Your task to perform on an android device: move an email to a new category in the gmail app Image 0: 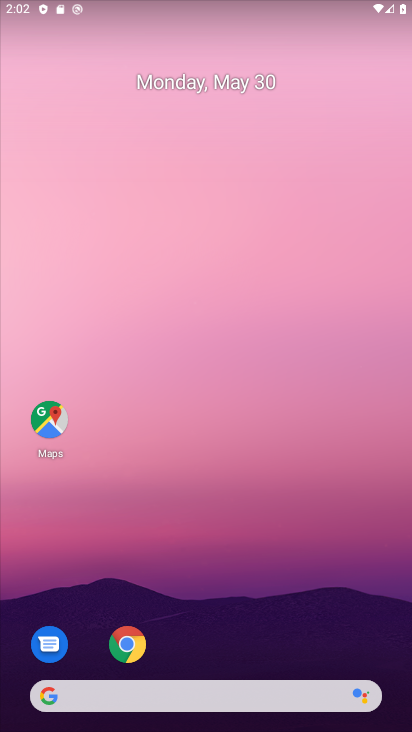
Step 0: drag from (215, 644) to (143, 90)
Your task to perform on an android device: move an email to a new category in the gmail app Image 1: 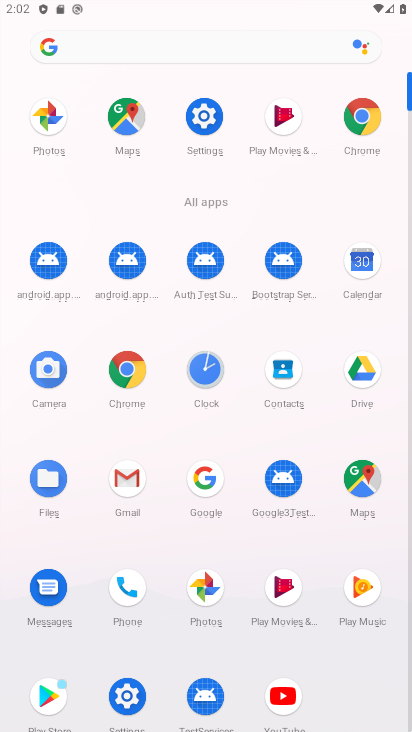
Step 1: click (132, 484)
Your task to perform on an android device: move an email to a new category in the gmail app Image 2: 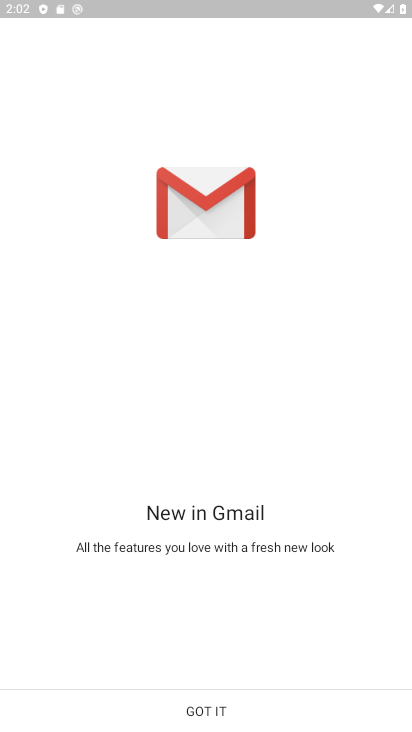
Step 2: click (194, 716)
Your task to perform on an android device: move an email to a new category in the gmail app Image 3: 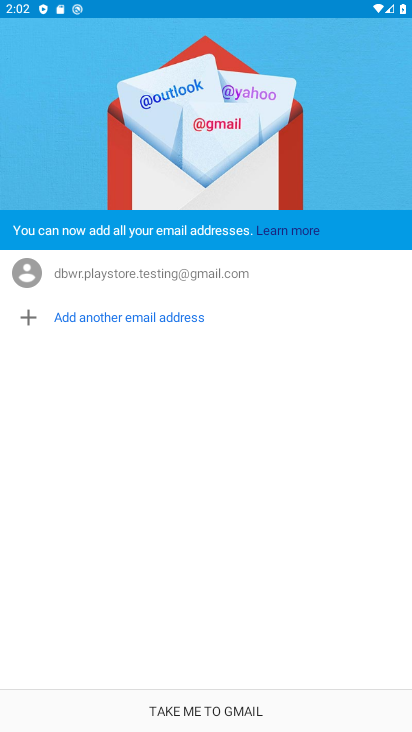
Step 3: click (193, 714)
Your task to perform on an android device: move an email to a new category in the gmail app Image 4: 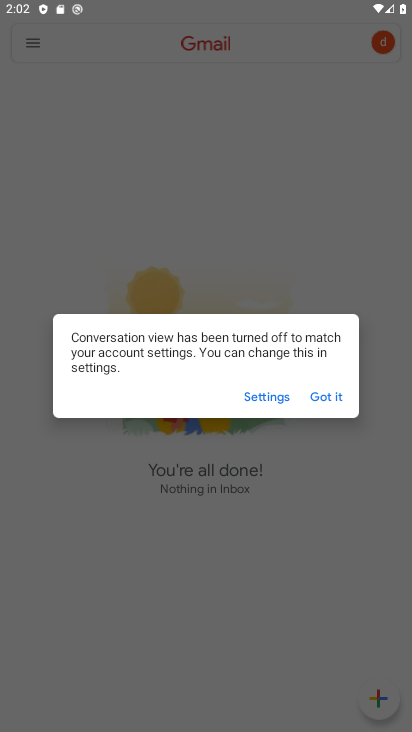
Step 4: click (319, 400)
Your task to perform on an android device: move an email to a new category in the gmail app Image 5: 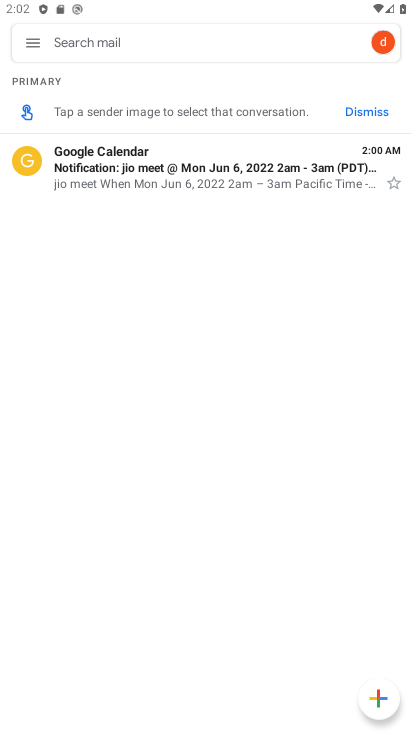
Step 5: click (214, 166)
Your task to perform on an android device: move an email to a new category in the gmail app Image 6: 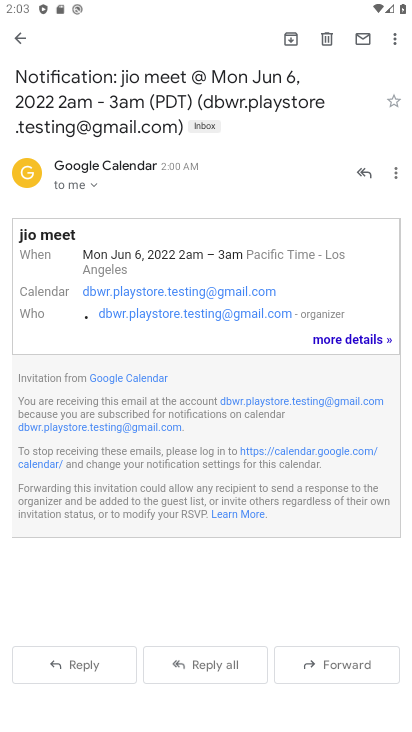
Step 6: click (396, 34)
Your task to perform on an android device: move an email to a new category in the gmail app Image 7: 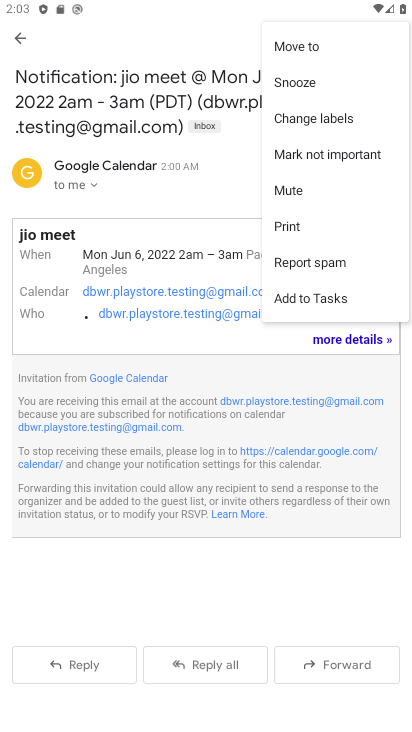
Step 7: click (298, 43)
Your task to perform on an android device: move an email to a new category in the gmail app Image 8: 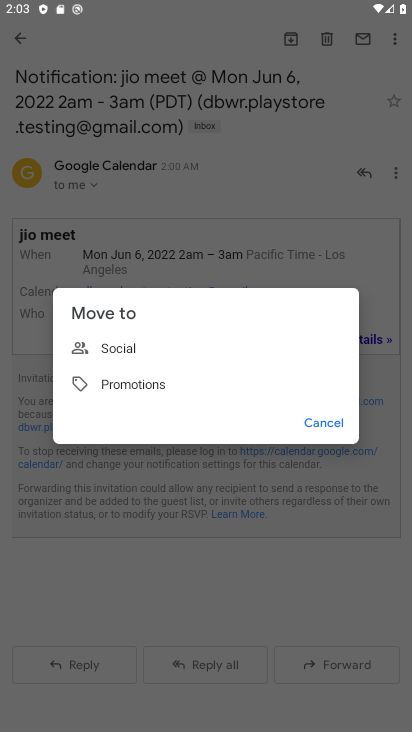
Step 8: click (155, 383)
Your task to perform on an android device: move an email to a new category in the gmail app Image 9: 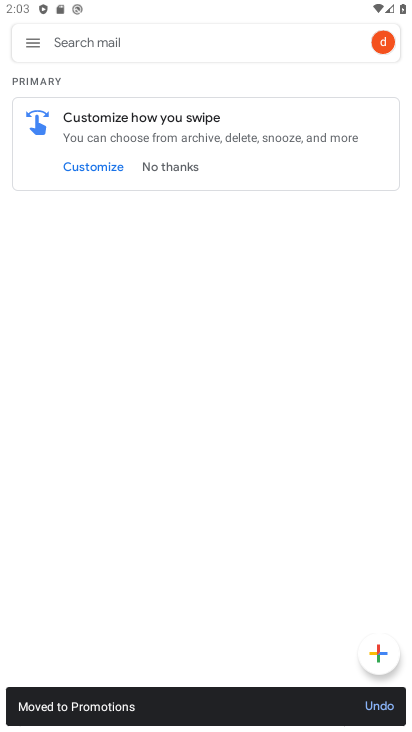
Step 9: task complete